Your task to perform on an android device: Do I have any events today? Image 0: 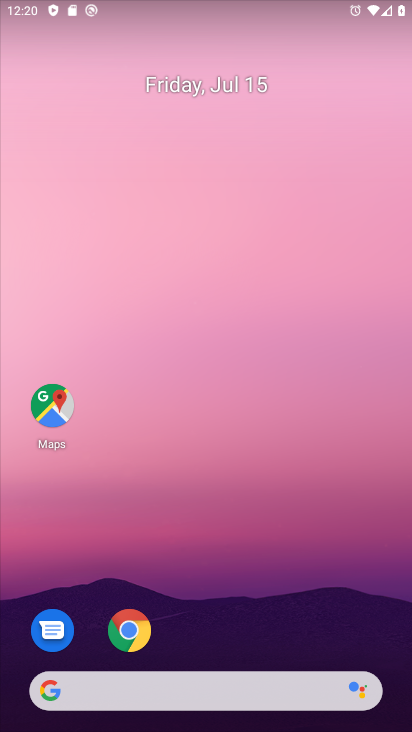
Step 0: drag from (208, 472) to (204, 26)
Your task to perform on an android device: Do I have any events today? Image 1: 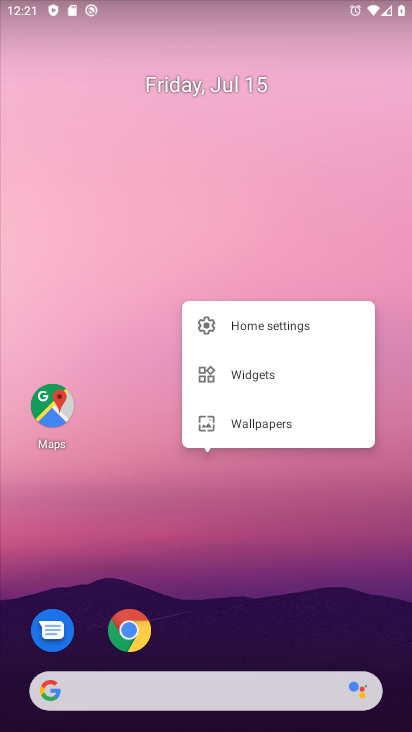
Step 1: click (263, 550)
Your task to perform on an android device: Do I have any events today? Image 2: 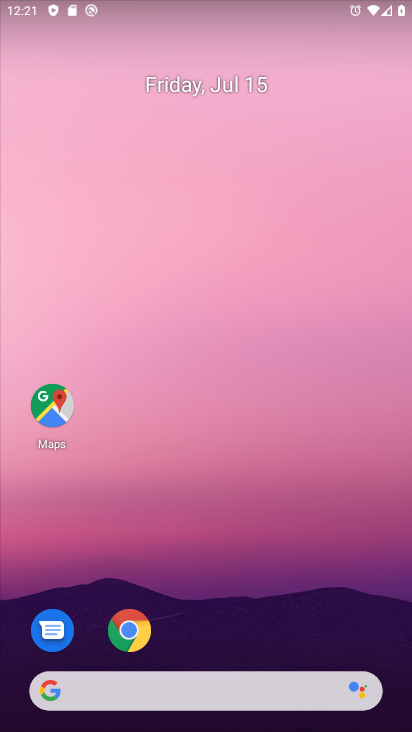
Step 2: drag from (224, 544) to (243, 361)
Your task to perform on an android device: Do I have any events today? Image 3: 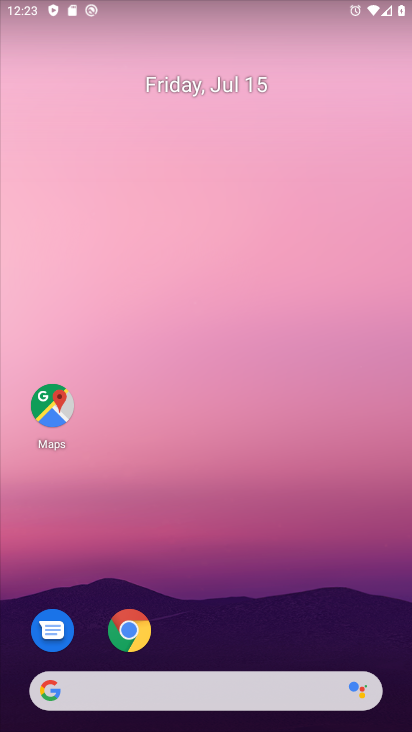
Step 3: drag from (198, 396) to (199, 250)
Your task to perform on an android device: Do I have any events today? Image 4: 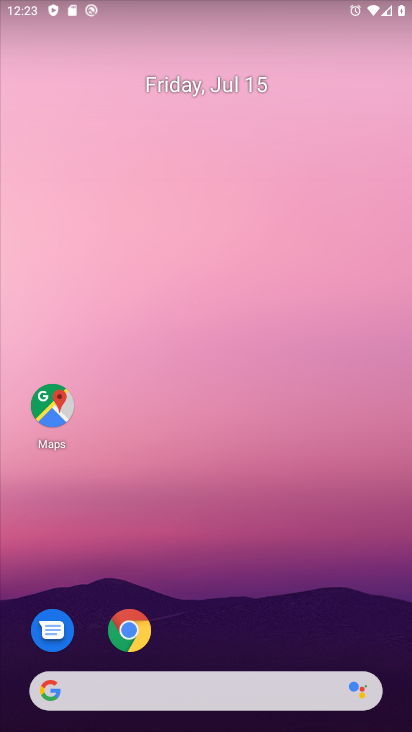
Step 4: drag from (203, 539) to (244, 150)
Your task to perform on an android device: Do I have any events today? Image 5: 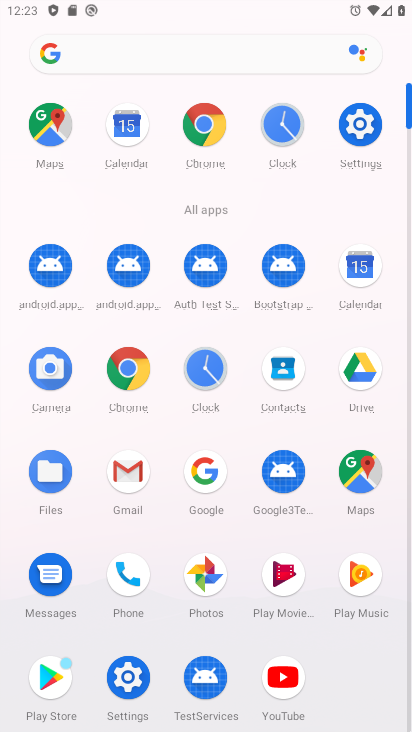
Step 5: click (367, 298)
Your task to perform on an android device: Do I have any events today? Image 6: 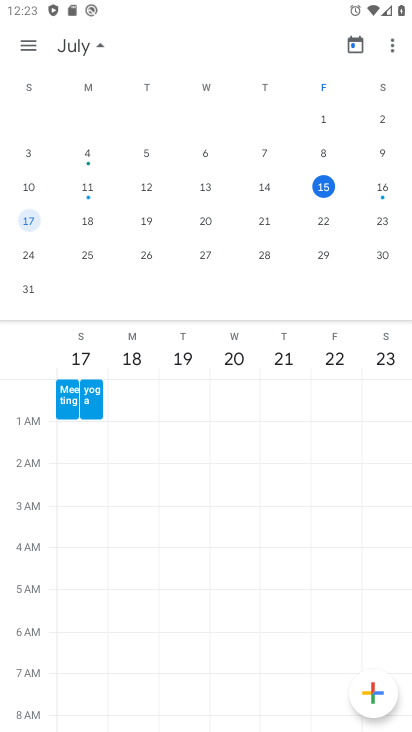
Step 6: task complete